Your task to perform on an android device: Go to battery settings Image 0: 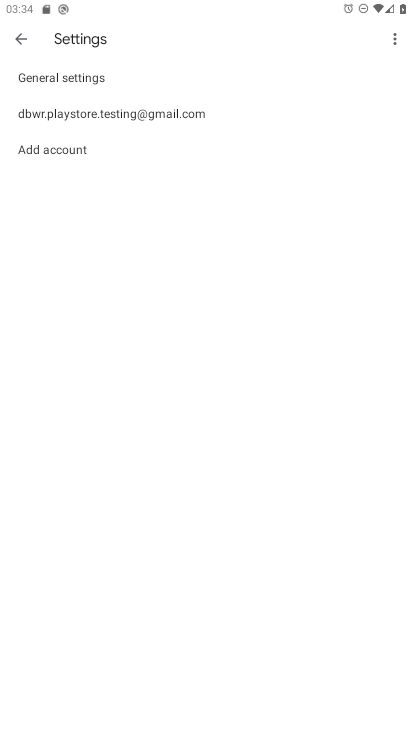
Step 0: press home button
Your task to perform on an android device: Go to battery settings Image 1: 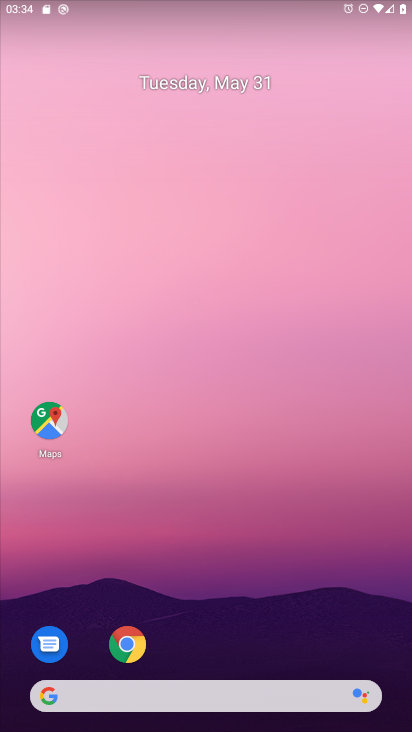
Step 1: drag from (264, 616) to (206, 56)
Your task to perform on an android device: Go to battery settings Image 2: 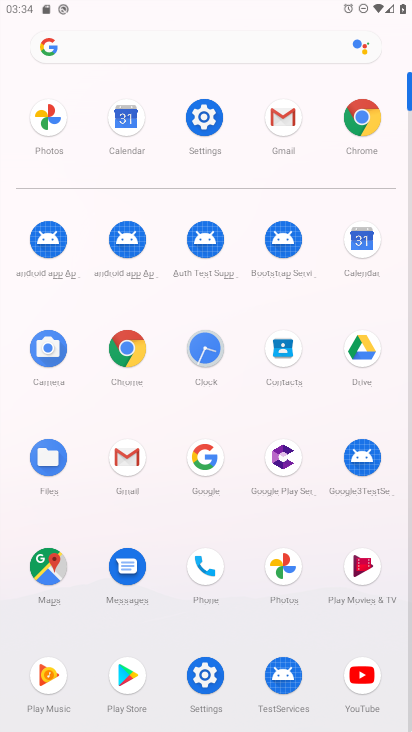
Step 2: click (206, 121)
Your task to perform on an android device: Go to battery settings Image 3: 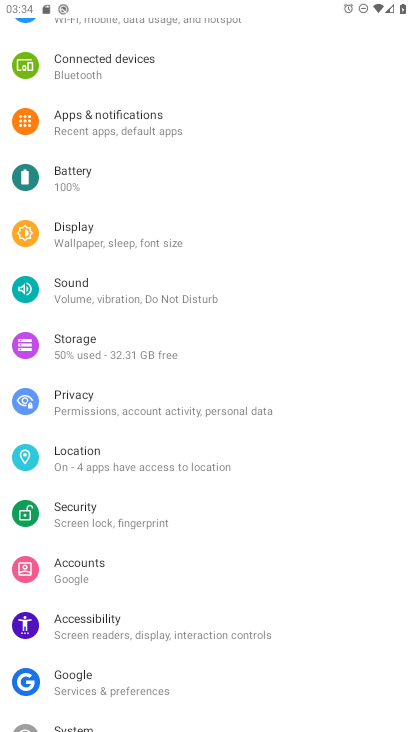
Step 3: click (70, 176)
Your task to perform on an android device: Go to battery settings Image 4: 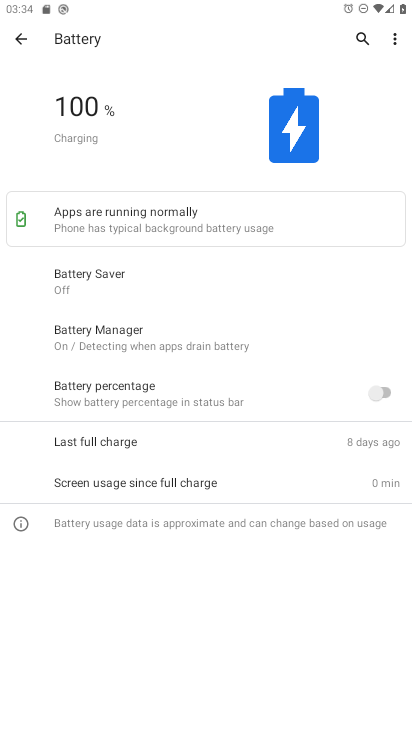
Step 4: task complete